Your task to perform on an android device: Go to CNN.com Image 0: 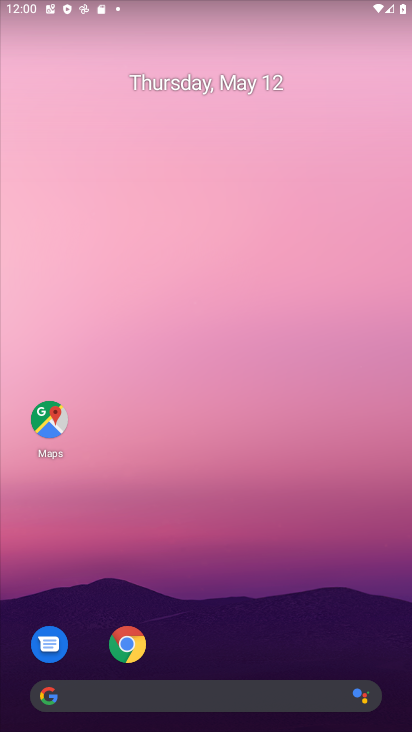
Step 0: click (141, 643)
Your task to perform on an android device: Go to CNN.com Image 1: 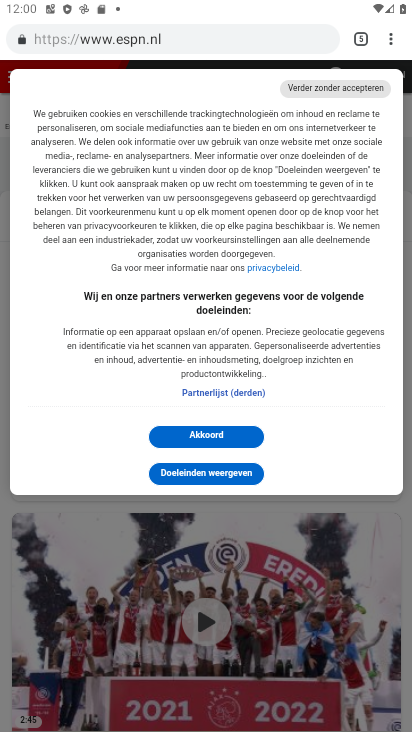
Step 1: click (228, 432)
Your task to perform on an android device: Go to CNN.com Image 2: 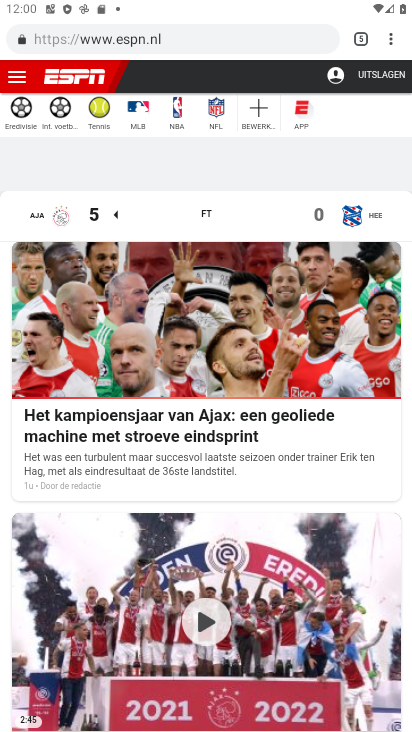
Step 2: click (292, 26)
Your task to perform on an android device: Go to CNN.com Image 3: 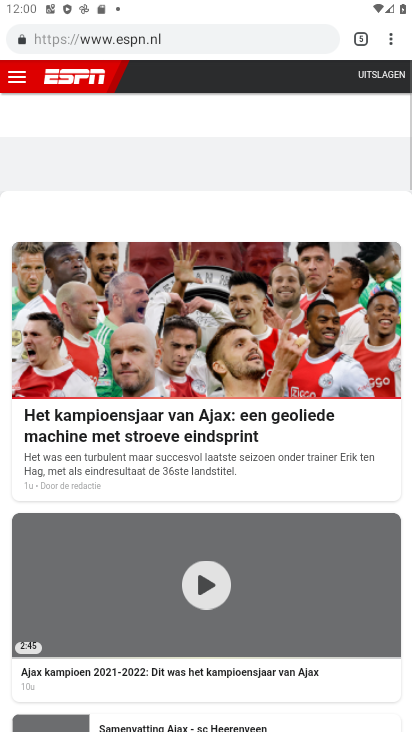
Step 3: click (292, 26)
Your task to perform on an android device: Go to CNN.com Image 4: 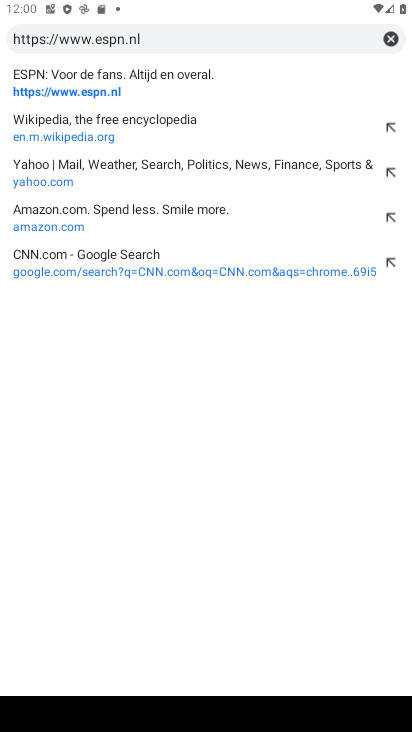
Step 4: click (143, 251)
Your task to perform on an android device: Go to CNN.com Image 5: 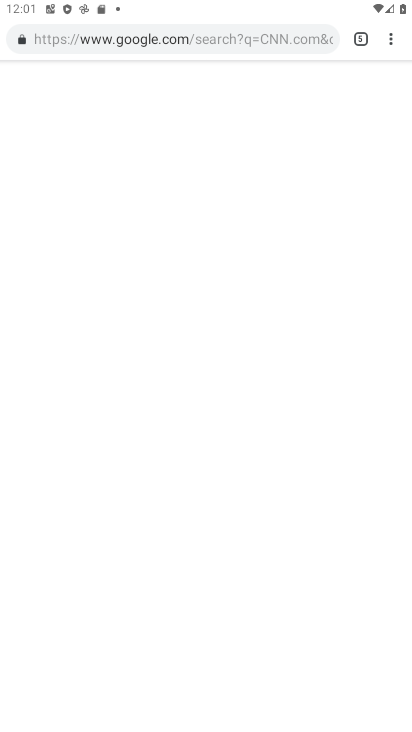
Step 5: task complete